Your task to perform on an android device: toggle translation in the chrome app Image 0: 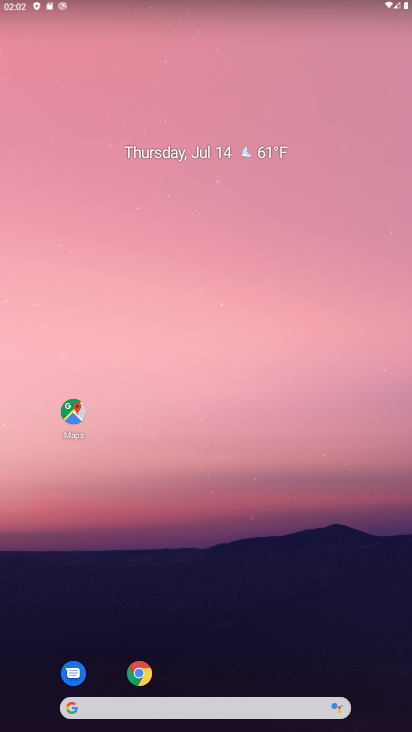
Step 0: click (134, 673)
Your task to perform on an android device: toggle translation in the chrome app Image 1: 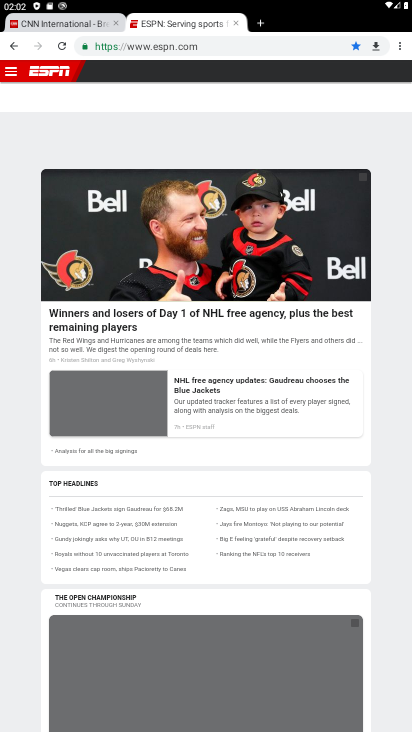
Step 1: click (405, 46)
Your task to perform on an android device: toggle translation in the chrome app Image 2: 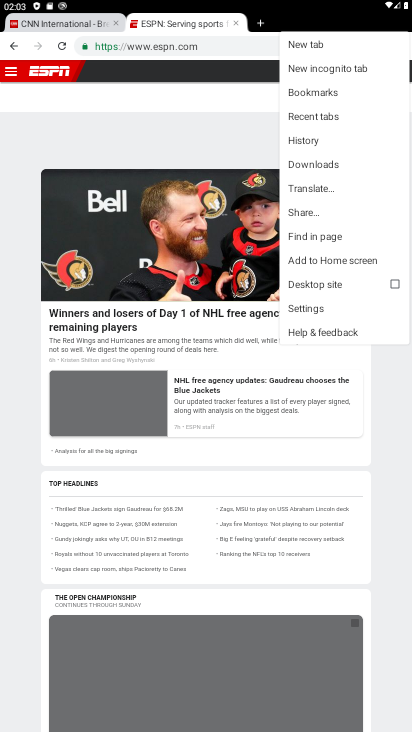
Step 2: click (334, 308)
Your task to perform on an android device: toggle translation in the chrome app Image 3: 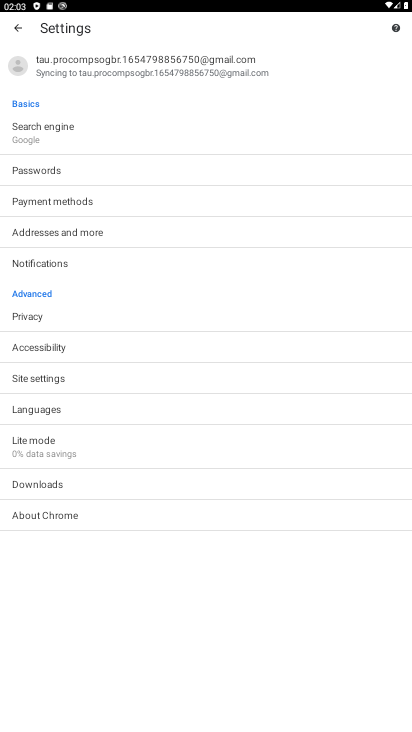
Step 3: click (219, 405)
Your task to perform on an android device: toggle translation in the chrome app Image 4: 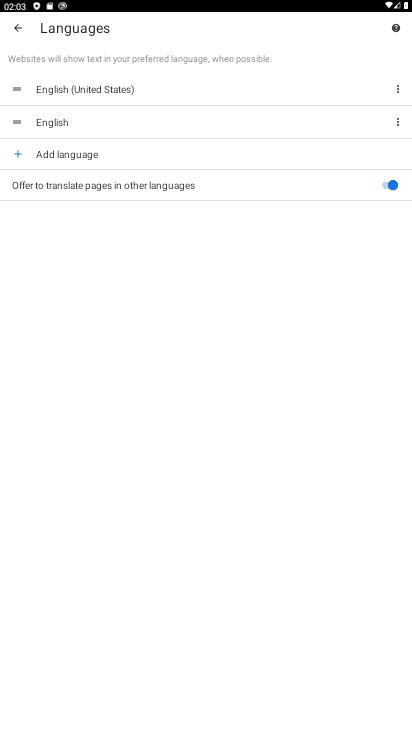
Step 4: task complete